Your task to perform on an android device: What's on my calendar tomorrow? Image 0: 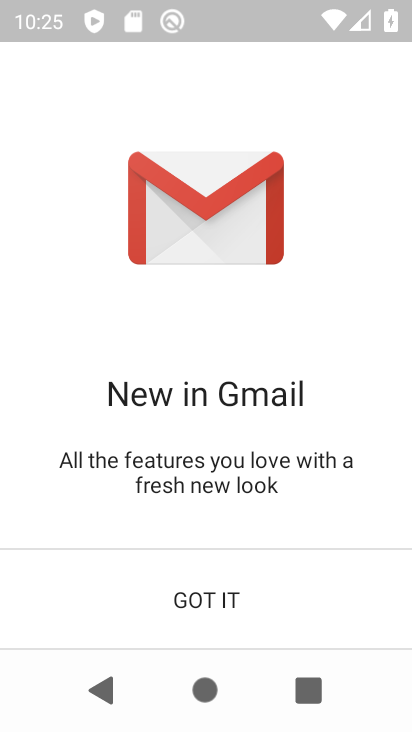
Step 0: press back button
Your task to perform on an android device: What's on my calendar tomorrow? Image 1: 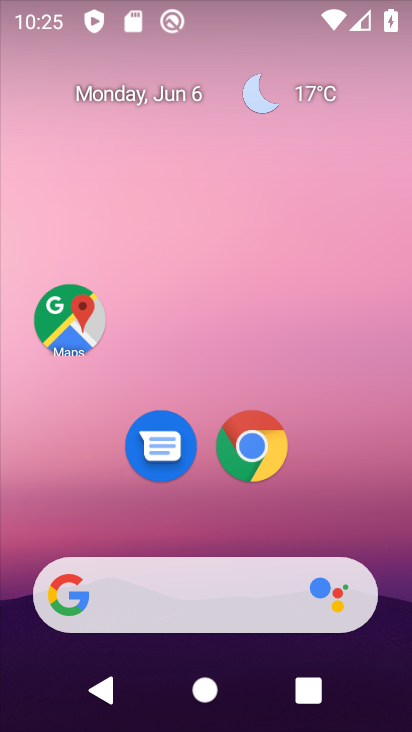
Step 1: drag from (345, 507) to (289, 7)
Your task to perform on an android device: What's on my calendar tomorrow? Image 2: 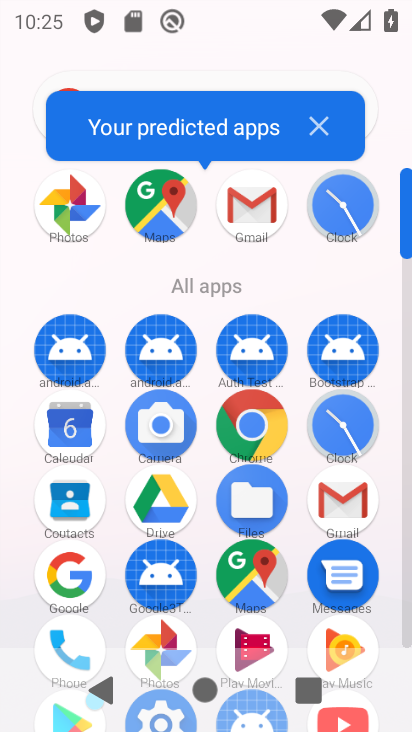
Step 2: drag from (8, 581) to (9, 261)
Your task to perform on an android device: What's on my calendar tomorrow? Image 3: 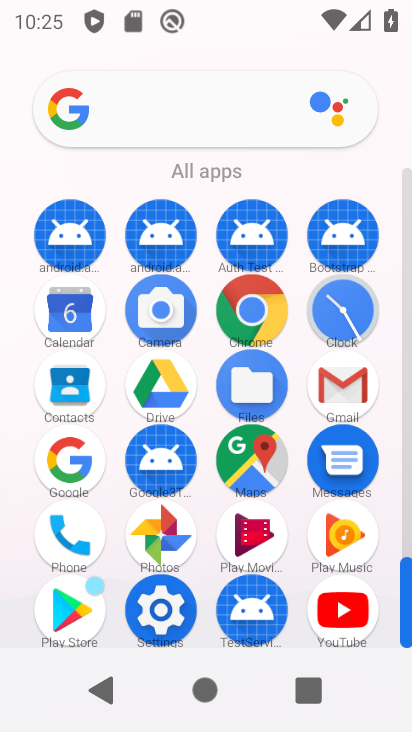
Step 3: click (70, 300)
Your task to perform on an android device: What's on my calendar tomorrow? Image 4: 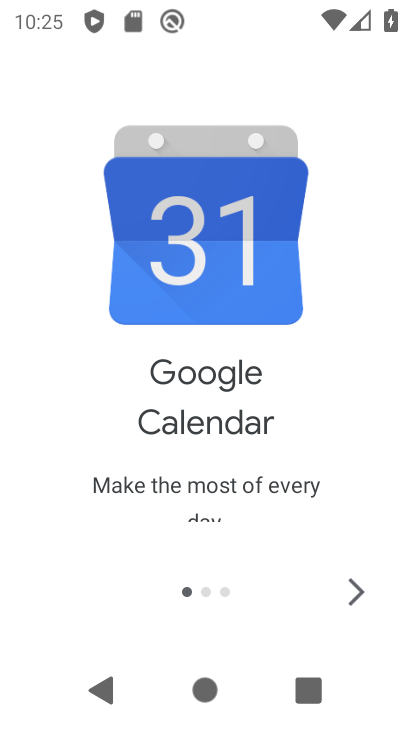
Step 4: click (341, 580)
Your task to perform on an android device: What's on my calendar tomorrow? Image 5: 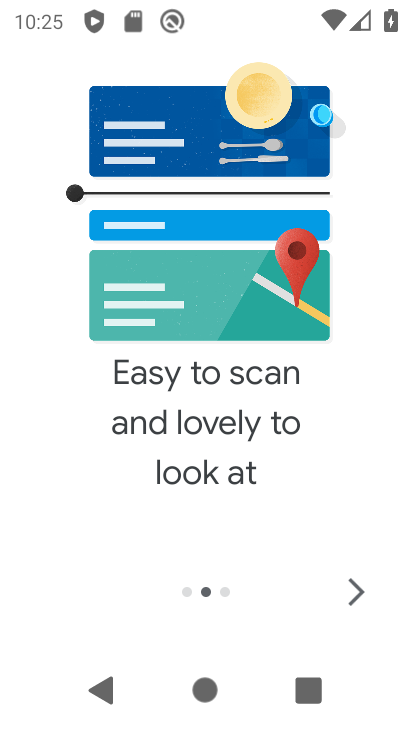
Step 5: click (341, 580)
Your task to perform on an android device: What's on my calendar tomorrow? Image 6: 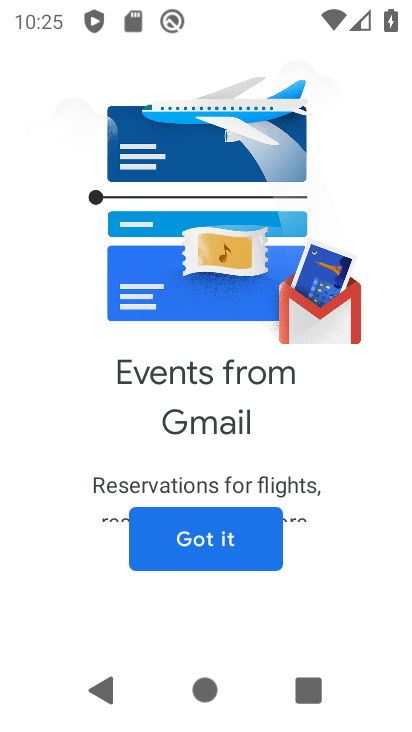
Step 6: click (222, 540)
Your task to perform on an android device: What's on my calendar tomorrow? Image 7: 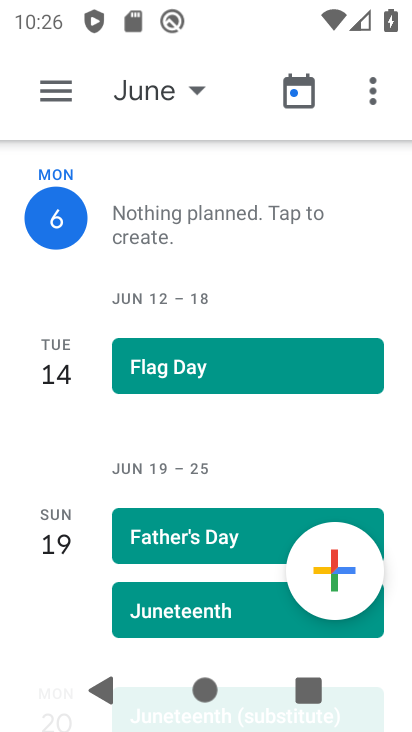
Step 7: click (67, 87)
Your task to perform on an android device: What's on my calendar tomorrow? Image 8: 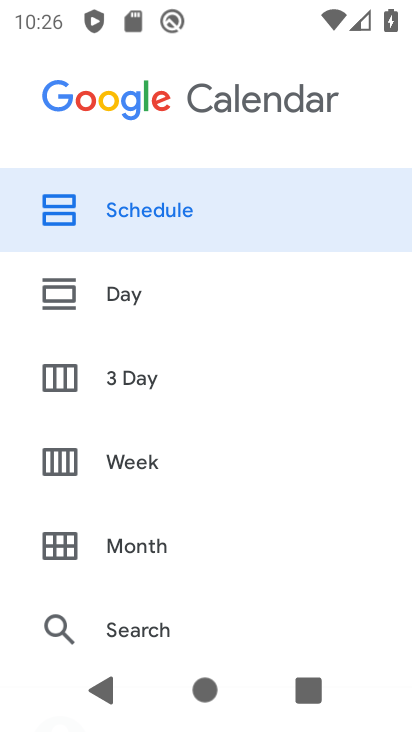
Step 8: click (138, 278)
Your task to perform on an android device: What's on my calendar tomorrow? Image 9: 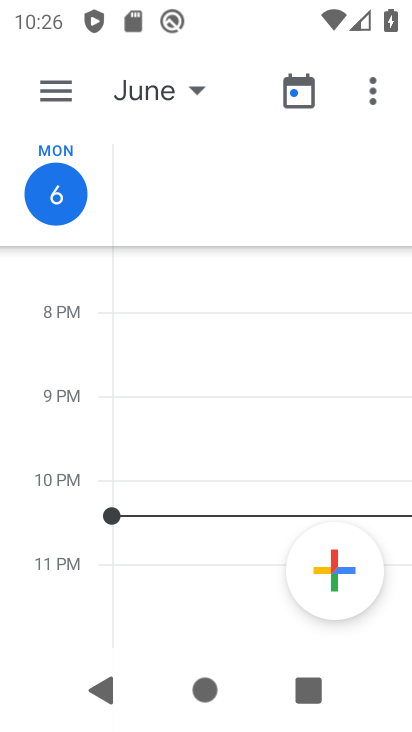
Step 9: task complete